Your task to perform on an android device: Open calendar and show me the first week of next month Image 0: 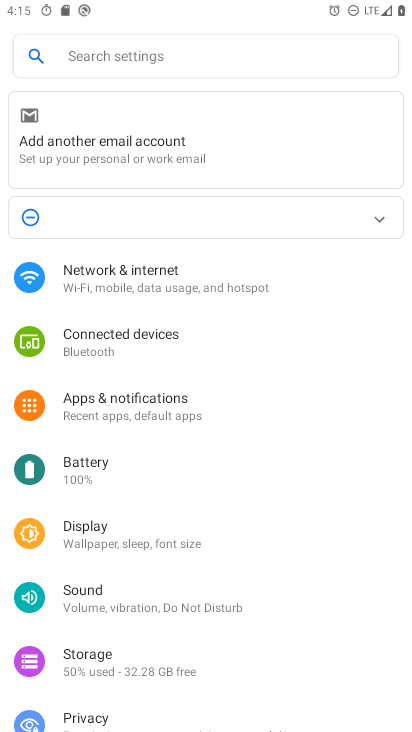
Step 0: press home button
Your task to perform on an android device: Open calendar and show me the first week of next month Image 1: 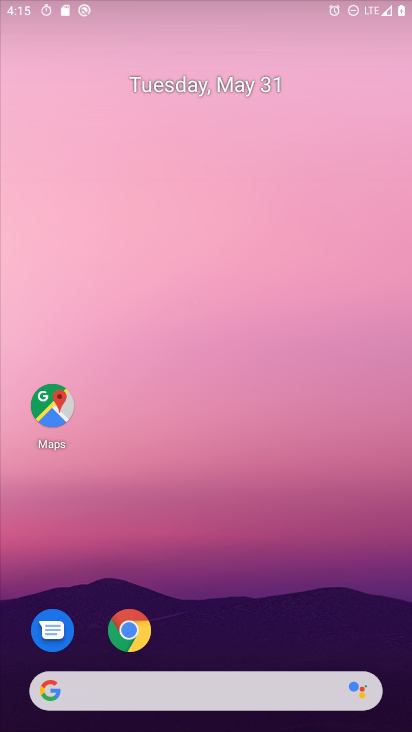
Step 1: drag from (182, 651) to (209, 120)
Your task to perform on an android device: Open calendar and show me the first week of next month Image 2: 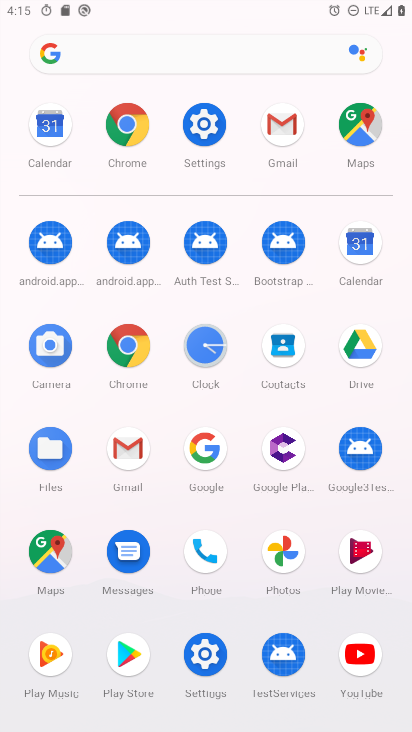
Step 2: click (366, 251)
Your task to perform on an android device: Open calendar and show me the first week of next month Image 3: 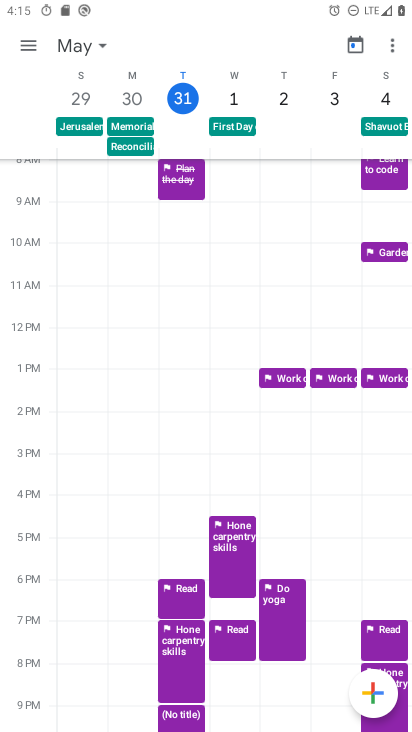
Step 3: click (100, 45)
Your task to perform on an android device: Open calendar and show me the first week of next month Image 4: 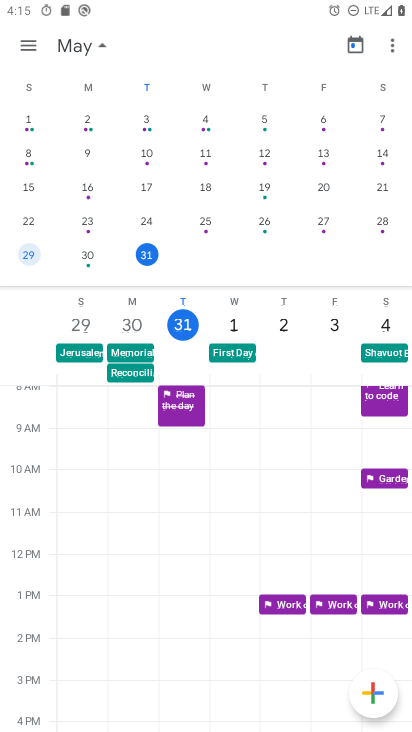
Step 4: drag from (375, 233) to (20, 226)
Your task to perform on an android device: Open calendar and show me the first week of next month Image 5: 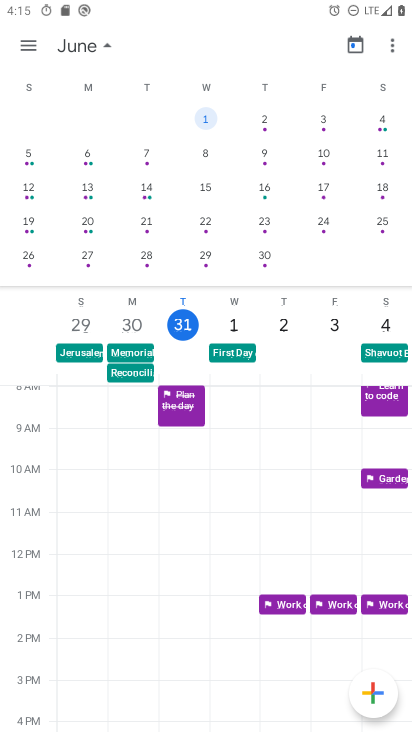
Step 5: click (339, 116)
Your task to perform on an android device: Open calendar and show me the first week of next month Image 6: 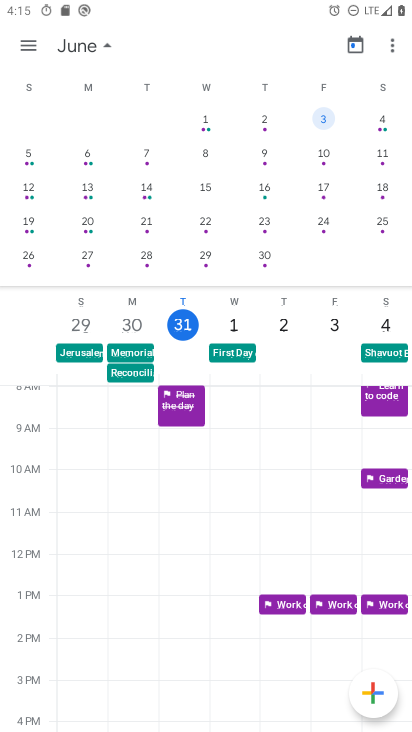
Step 6: task complete